Your task to perform on an android device: How much does a 2 bedroom apartment rent for in Denver? Image 0: 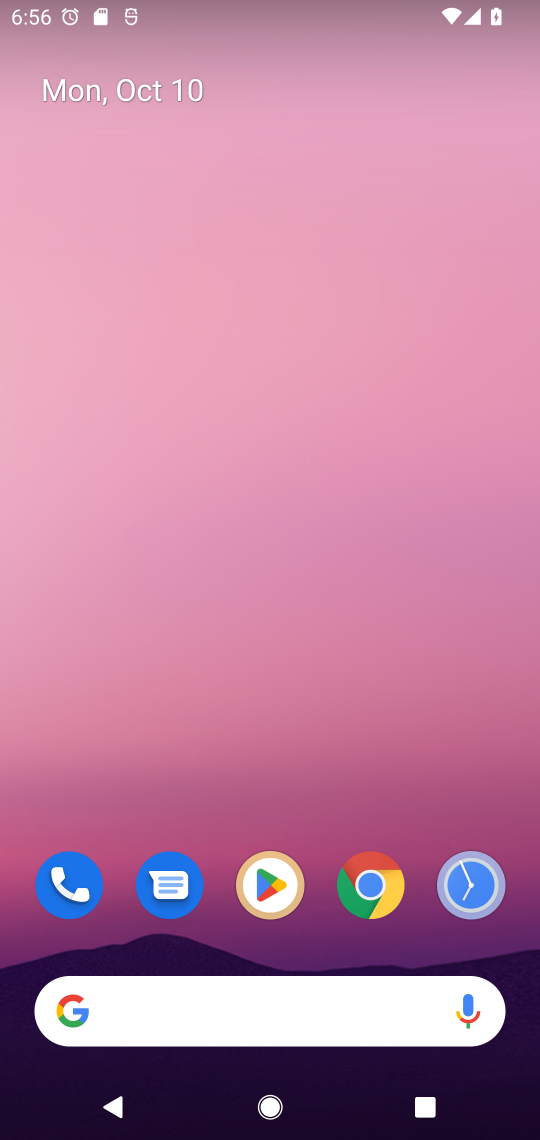
Step 0: click (369, 885)
Your task to perform on an android device: How much does a 2 bedroom apartment rent for in Denver? Image 1: 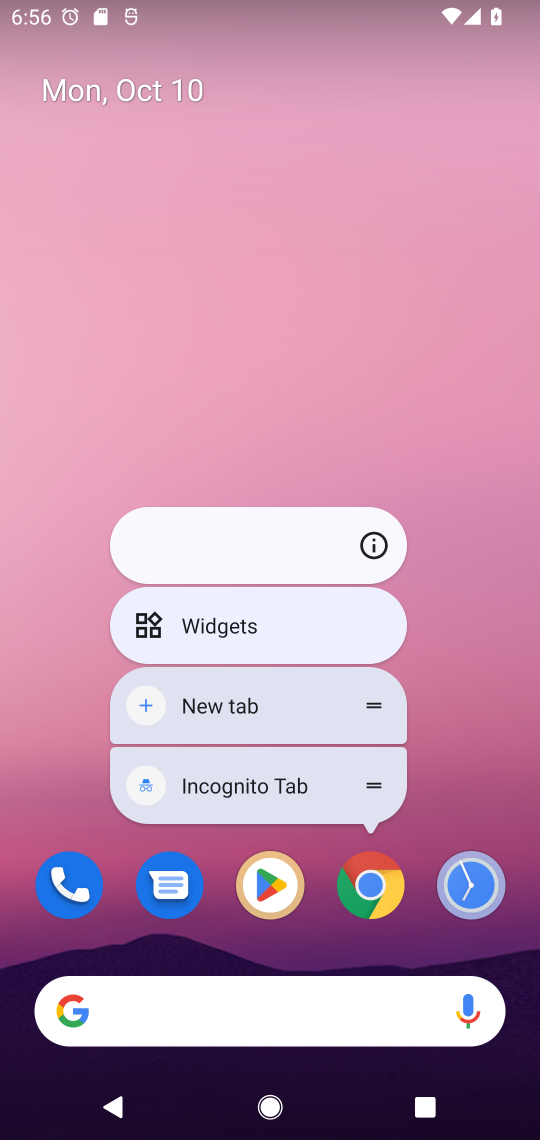
Step 1: click (378, 886)
Your task to perform on an android device: How much does a 2 bedroom apartment rent for in Denver? Image 2: 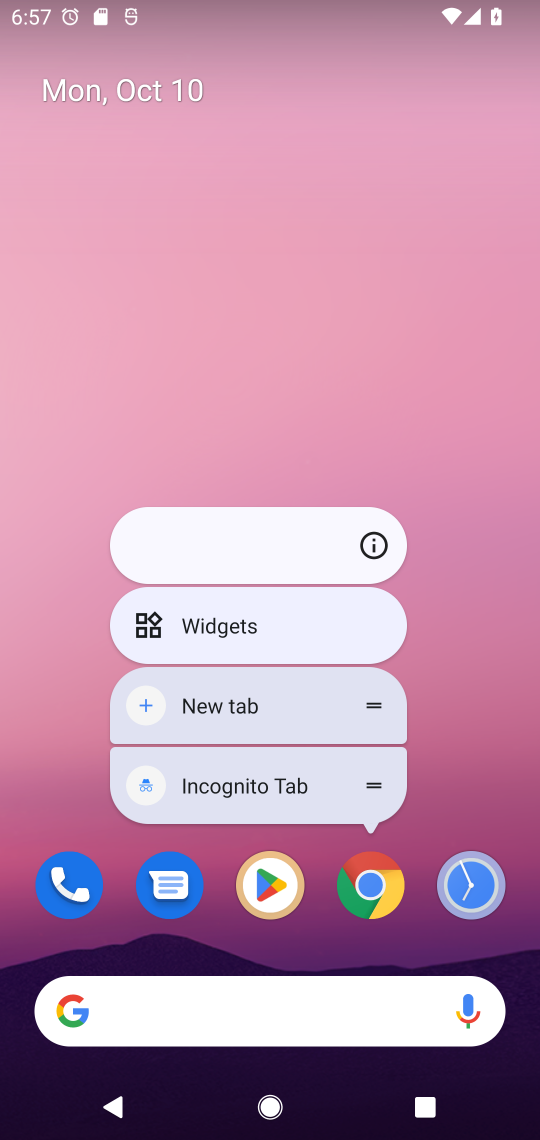
Step 2: click (378, 894)
Your task to perform on an android device: How much does a 2 bedroom apartment rent for in Denver? Image 3: 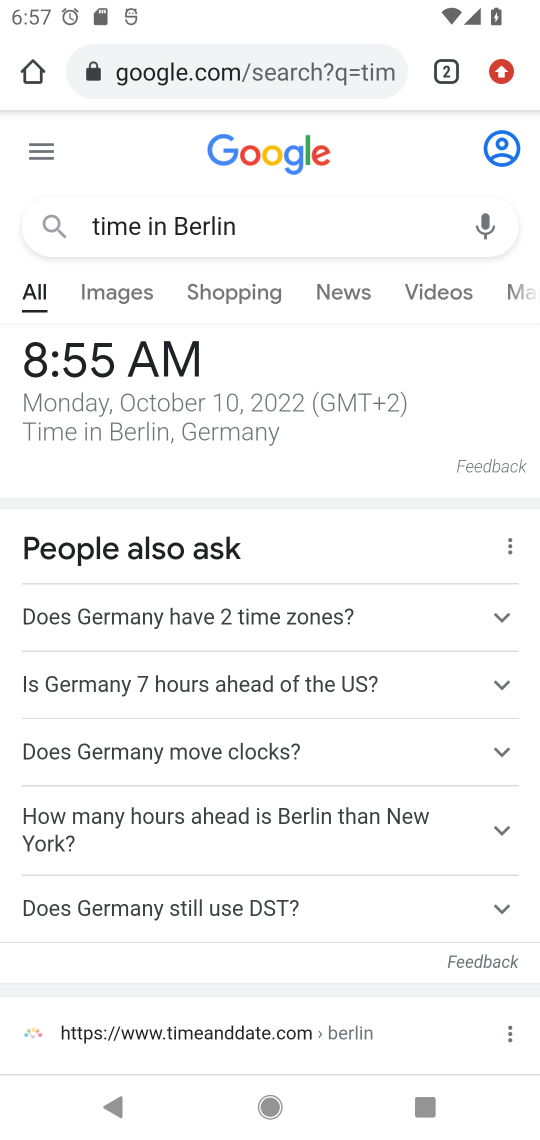
Step 3: click (214, 70)
Your task to perform on an android device: How much does a 2 bedroom apartment rent for in Denver? Image 4: 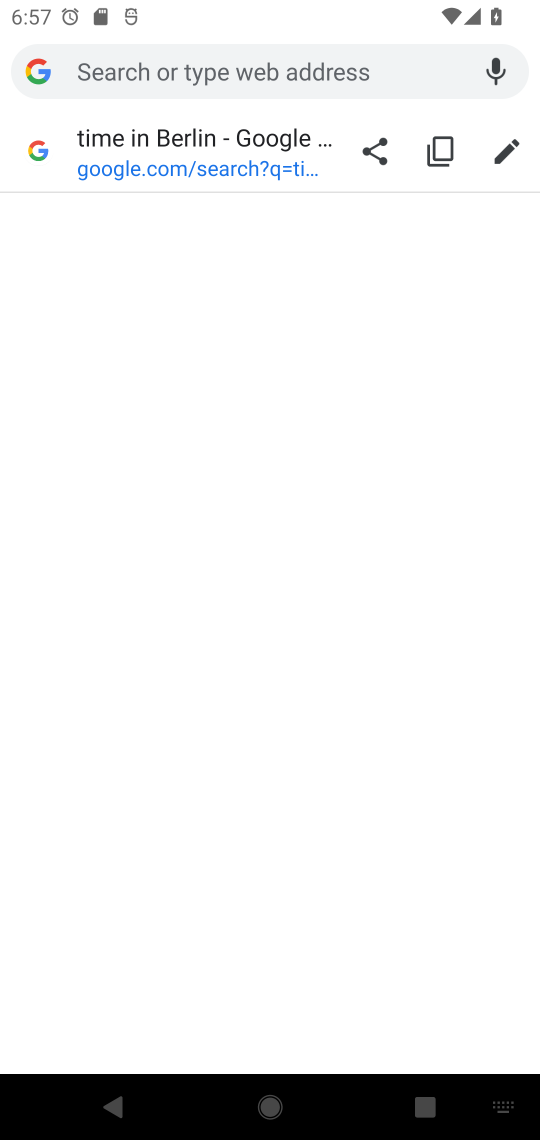
Step 4: type "2 bedroom apartment rent for in Denver"
Your task to perform on an android device: How much does a 2 bedroom apartment rent for in Denver? Image 5: 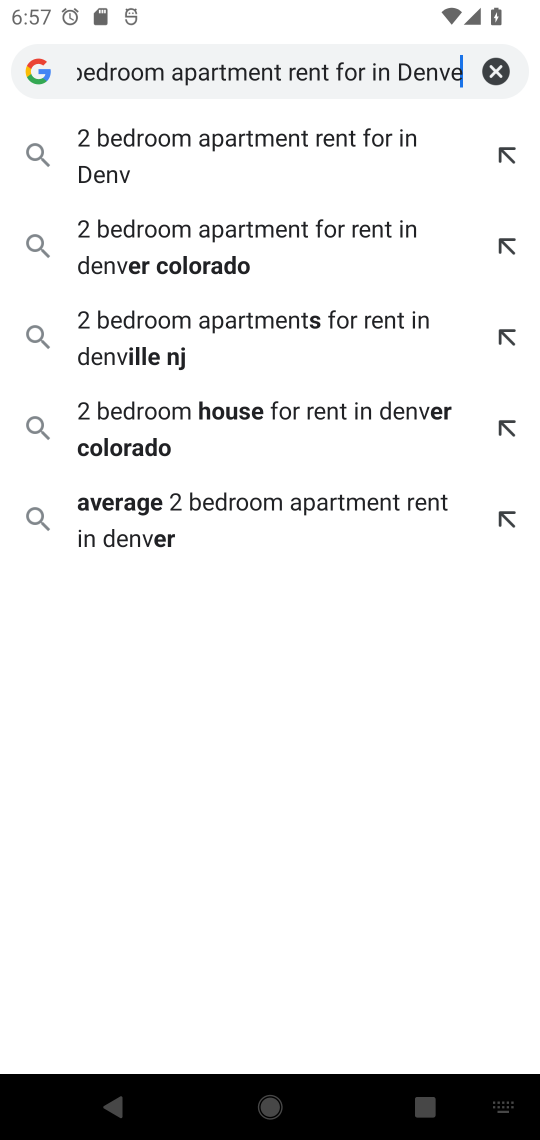
Step 5: type ""
Your task to perform on an android device: How much does a 2 bedroom apartment rent for in Denver? Image 6: 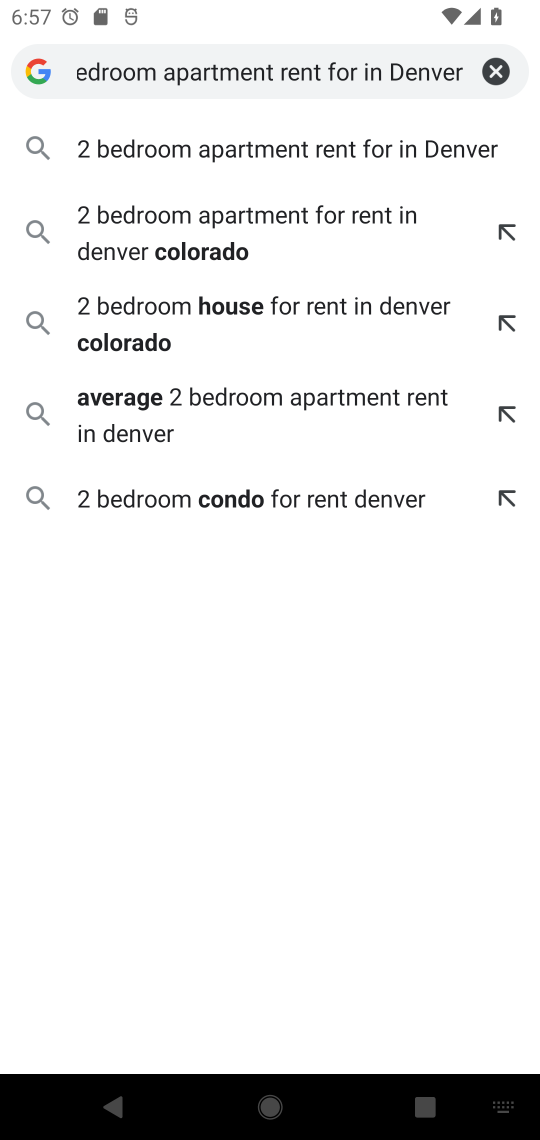
Step 6: click (251, 147)
Your task to perform on an android device: How much does a 2 bedroom apartment rent for in Denver? Image 7: 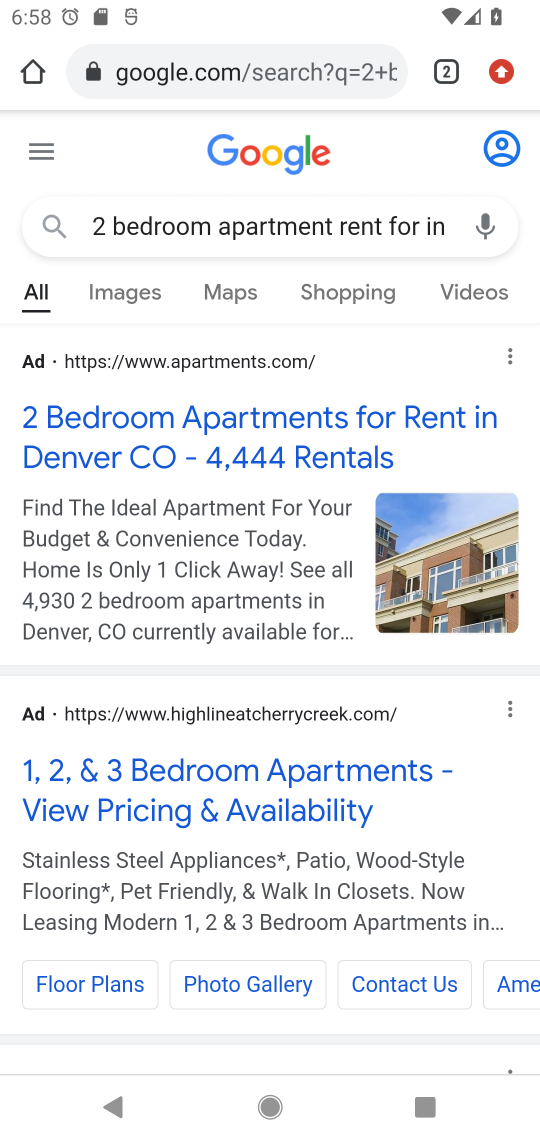
Step 7: click (96, 418)
Your task to perform on an android device: How much does a 2 bedroom apartment rent for in Denver? Image 8: 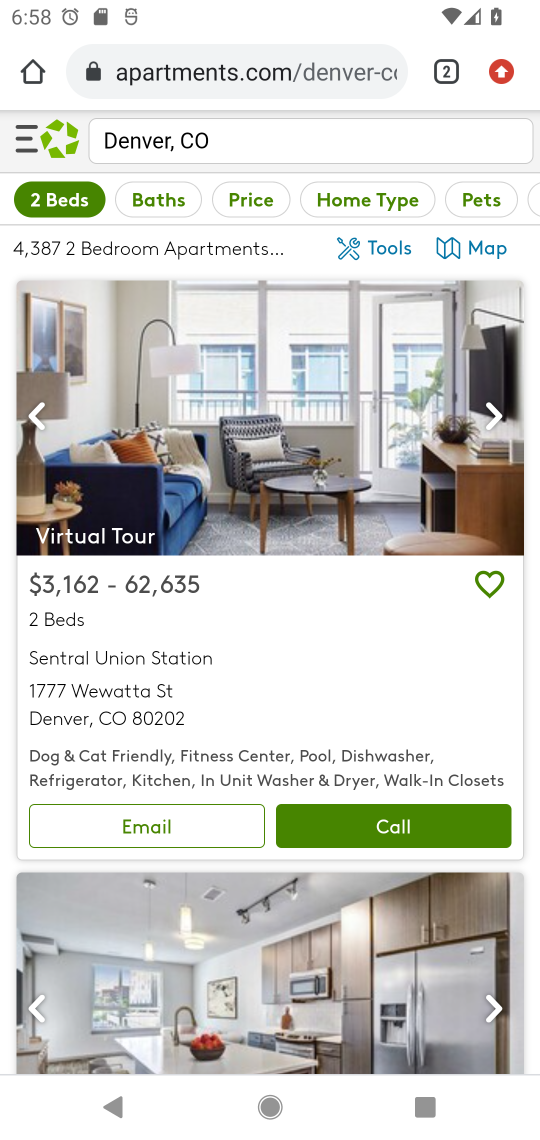
Step 8: task complete